Your task to perform on an android device: check storage Image 0: 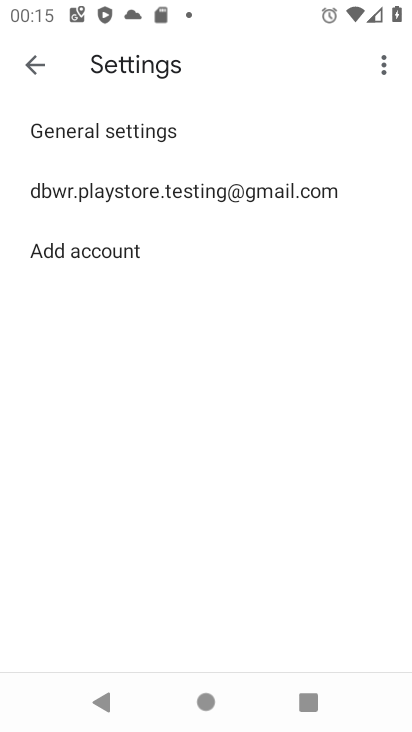
Step 0: press home button
Your task to perform on an android device: check storage Image 1: 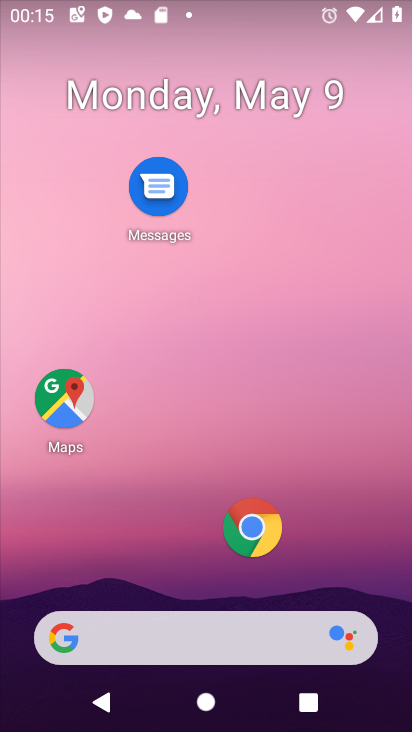
Step 1: drag from (187, 573) to (187, 82)
Your task to perform on an android device: check storage Image 2: 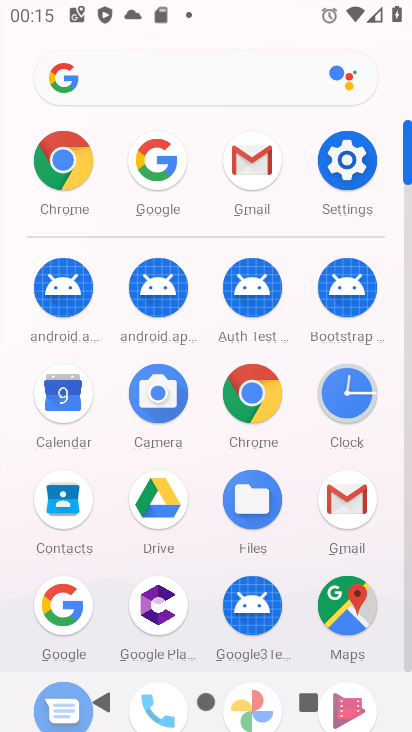
Step 2: click (342, 168)
Your task to perform on an android device: check storage Image 3: 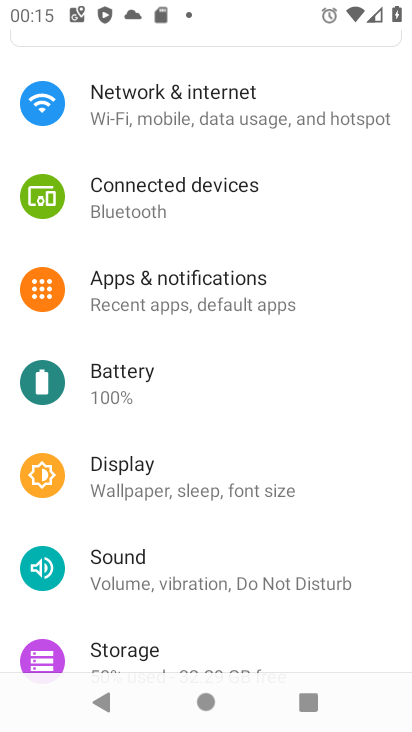
Step 3: drag from (214, 503) to (201, 287)
Your task to perform on an android device: check storage Image 4: 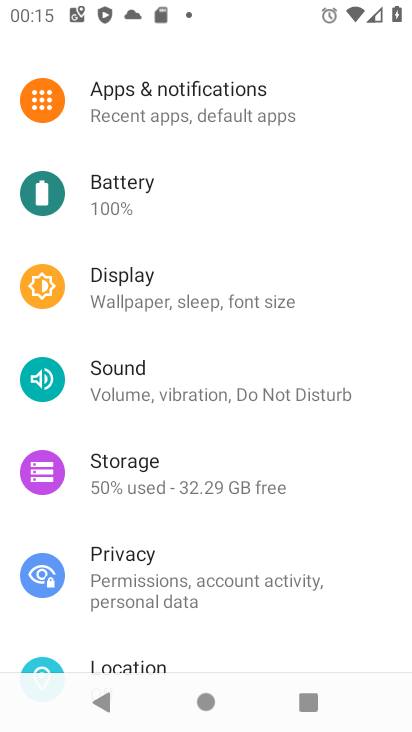
Step 4: click (130, 477)
Your task to perform on an android device: check storage Image 5: 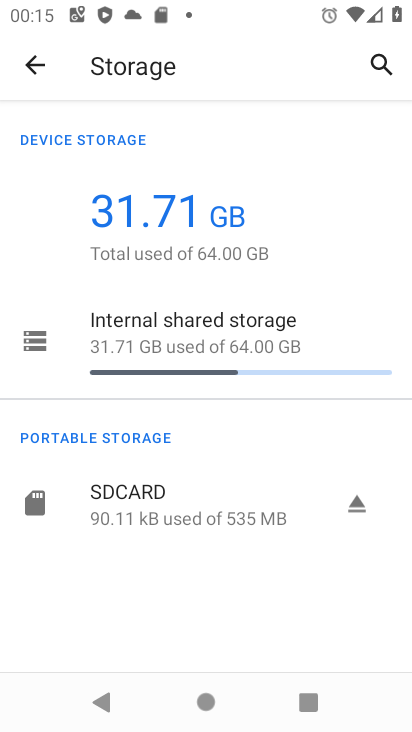
Step 5: task complete